Your task to perform on an android device: What is the news today? Image 0: 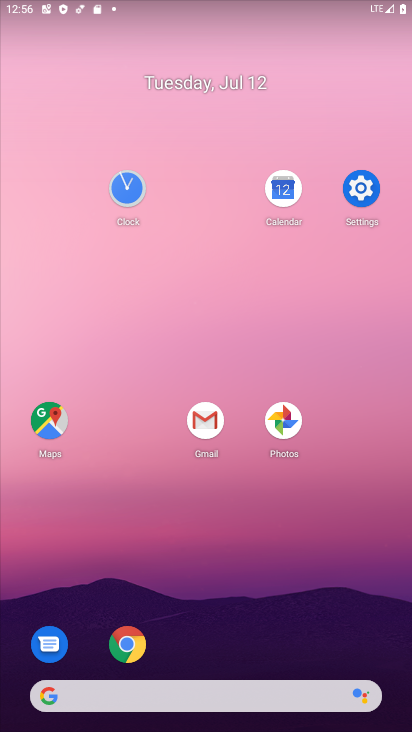
Step 0: click (125, 639)
Your task to perform on an android device: What is the news today? Image 1: 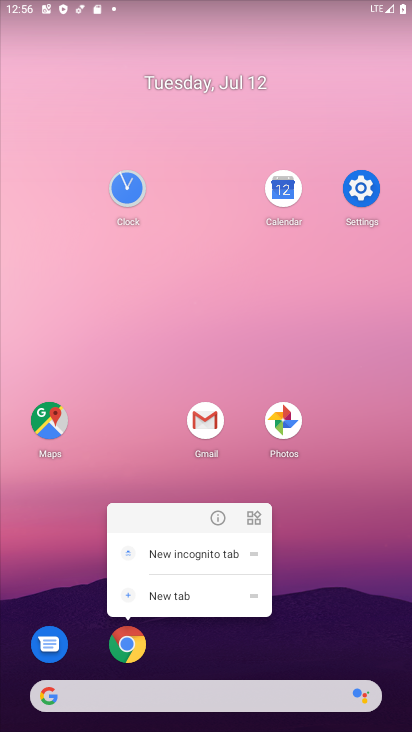
Step 1: click (142, 652)
Your task to perform on an android device: What is the news today? Image 2: 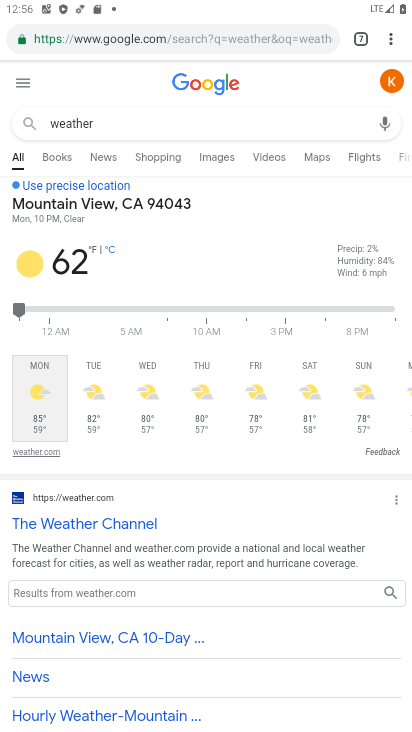
Step 2: click (187, 112)
Your task to perform on an android device: What is the news today? Image 3: 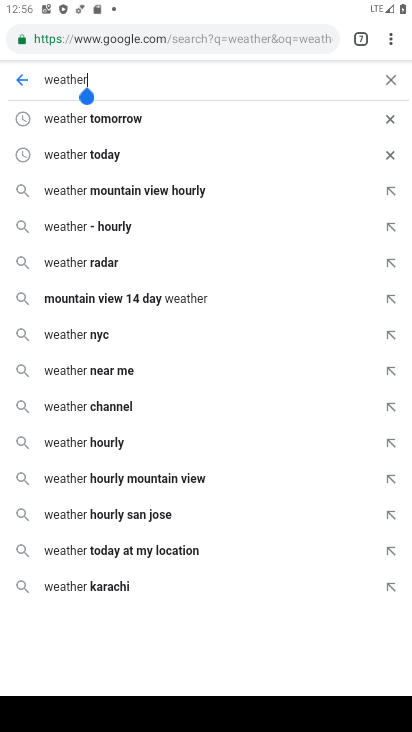
Step 3: click (384, 78)
Your task to perform on an android device: What is the news today? Image 4: 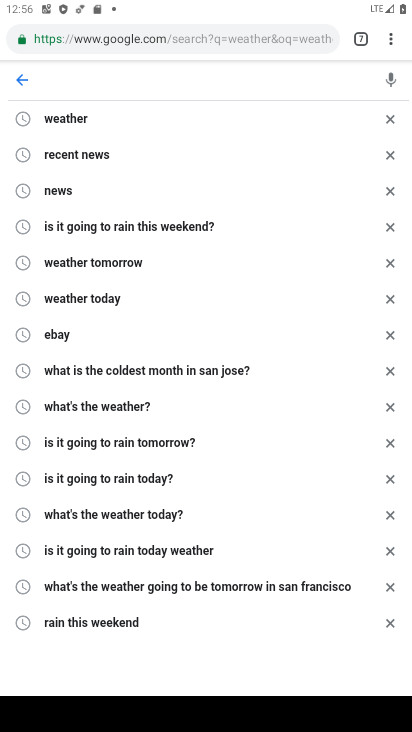
Step 4: click (106, 194)
Your task to perform on an android device: What is the news today? Image 5: 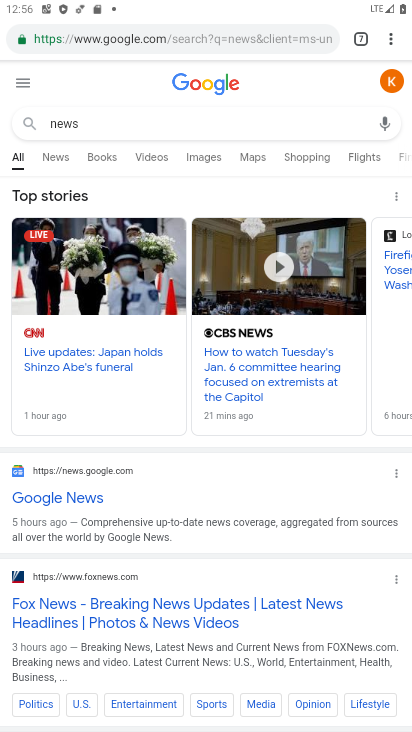
Step 5: task complete